Your task to perform on an android device: Check the weather Image 0: 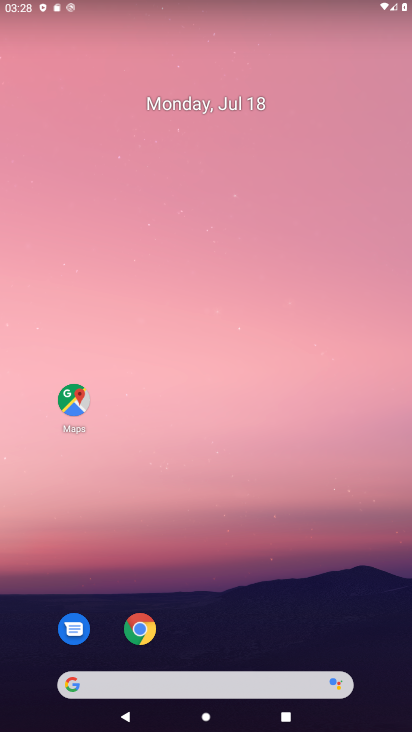
Step 0: drag from (376, 699) to (235, 216)
Your task to perform on an android device: Check the weather Image 1: 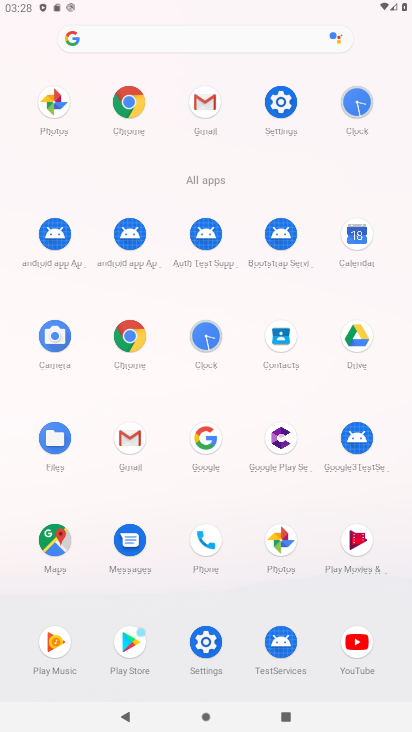
Step 1: press home button
Your task to perform on an android device: Check the weather Image 2: 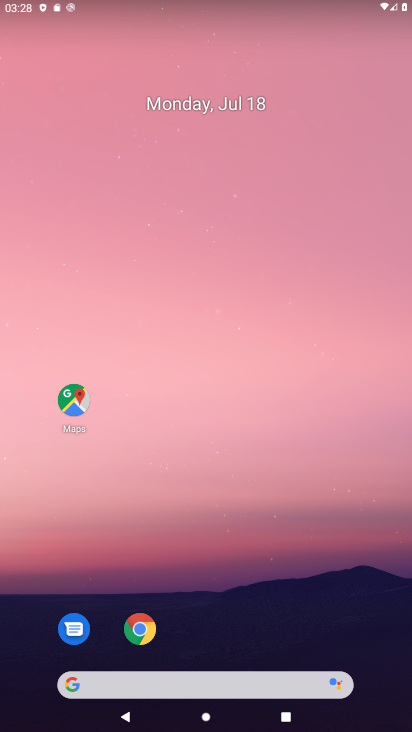
Step 2: drag from (4, 224) to (411, 285)
Your task to perform on an android device: Check the weather Image 3: 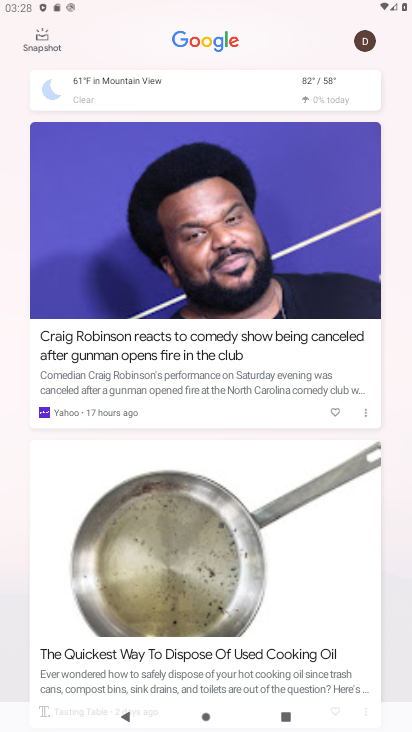
Step 3: click (320, 88)
Your task to perform on an android device: Check the weather Image 4: 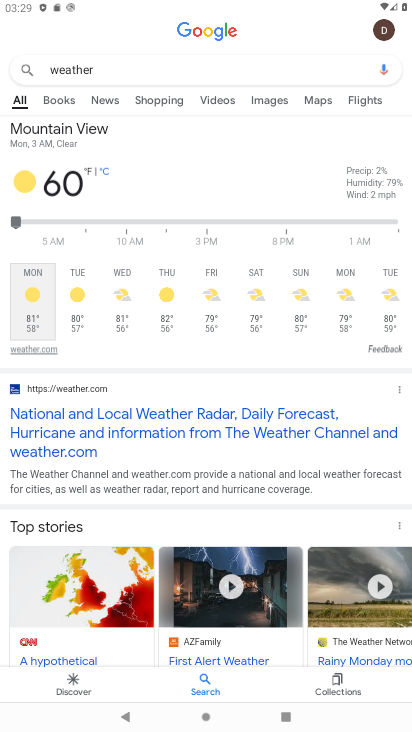
Step 4: task complete